Your task to perform on an android device: check out phone information Image 0: 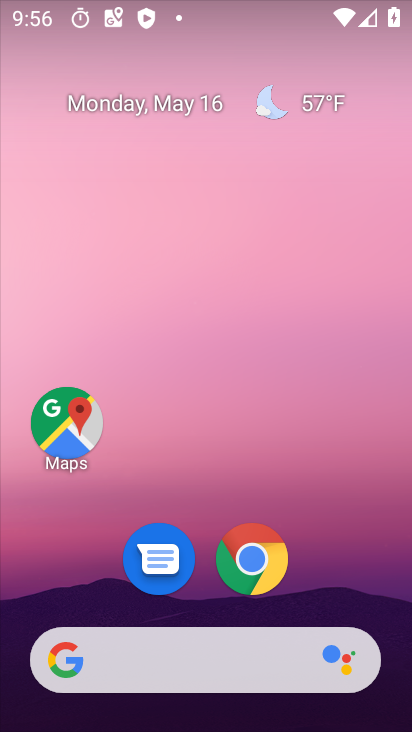
Step 0: drag from (337, 565) to (277, 67)
Your task to perform on an android device: check out phone information Image 1: 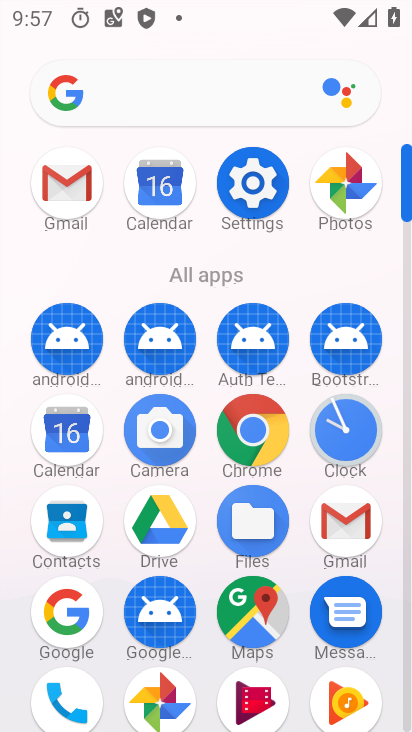
Step 1: drag from (79, 697) to (118, 623)
Your task to perform on an android device: check out phone information Image 2: 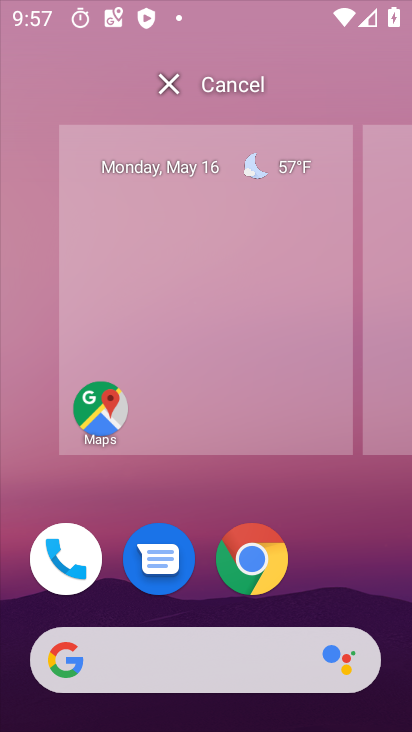
Step 2: click (126, 606)
Your task to perform on an android device: check out phone information Image 3: 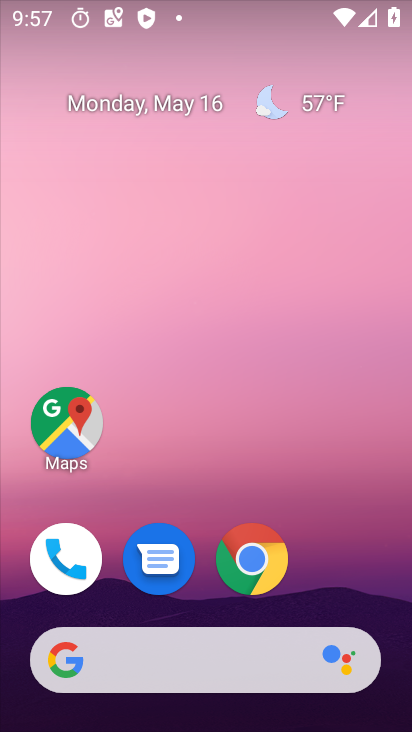
Step 3: click (77, 560)
Your task to perform on an android device: check out phone information Image 4: 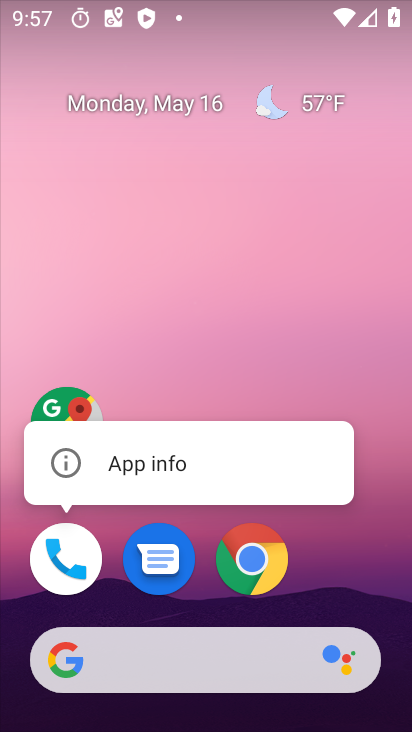
Step 4: click (133, 460)
Your task to perform on an android device: check out phone information Image 5: 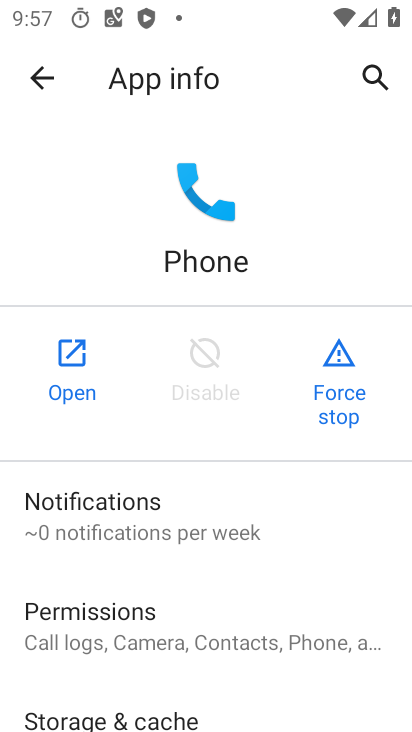
Step 5: task complete